Your task to perform on an android device: turn off javascript in the chrome app Image 0: 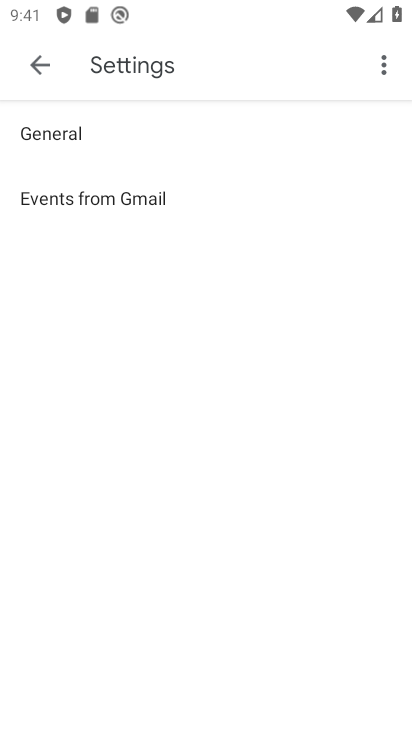
Step 0: press back button
Your task to perform on an android device: turn off javascript in the chrome app Image 1: 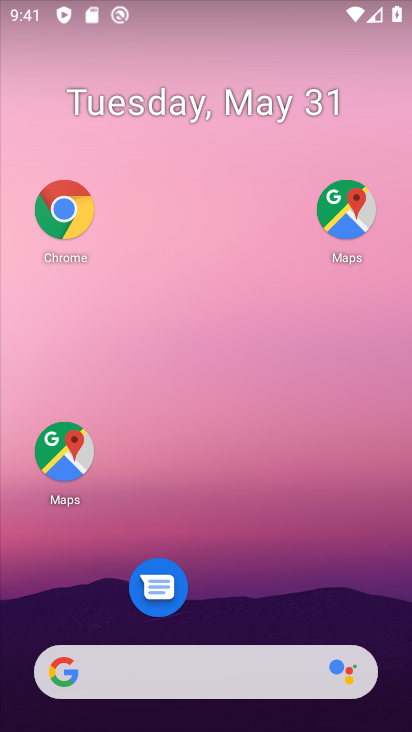
Step 1: drag from (248, 600) to (157, 81)
Your task to perform on an android device: turn off javascript in the chrome app Image 2: 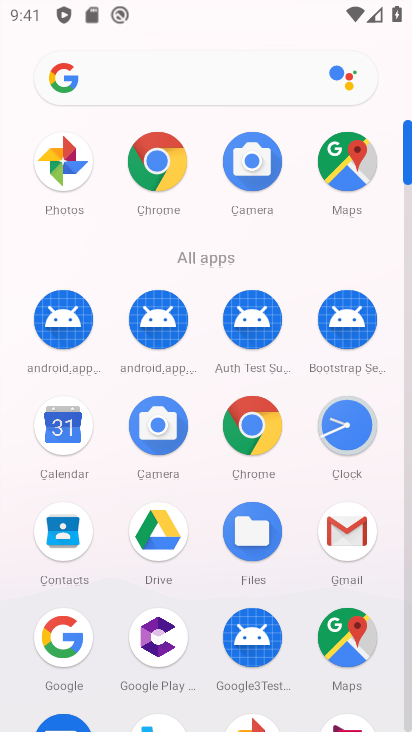
Step 2: click (244, 427)
Your task to perform on an android device: turn off javascript in the chrome app Image 3: 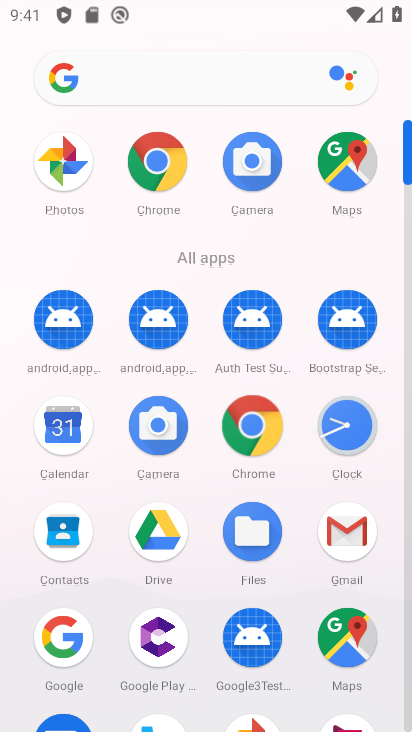
Step 3: click (249, 424)
Your task to perform on an android device: turn off javascript in the chrome app Image 4: 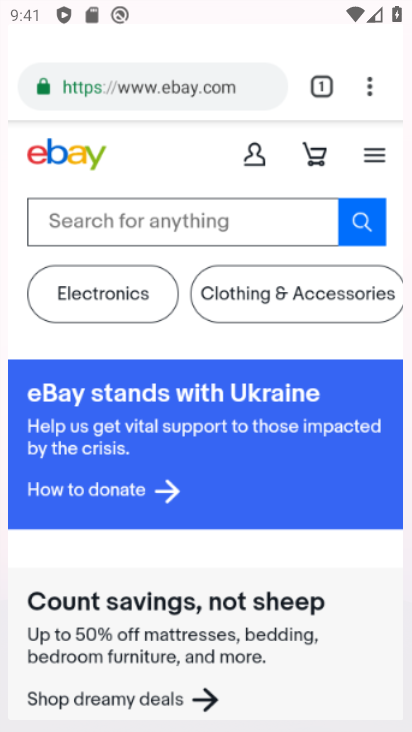
Step 4: click (250, 424)
Your task to perform on an android device: turn off javascript in the chrome app Image 5: 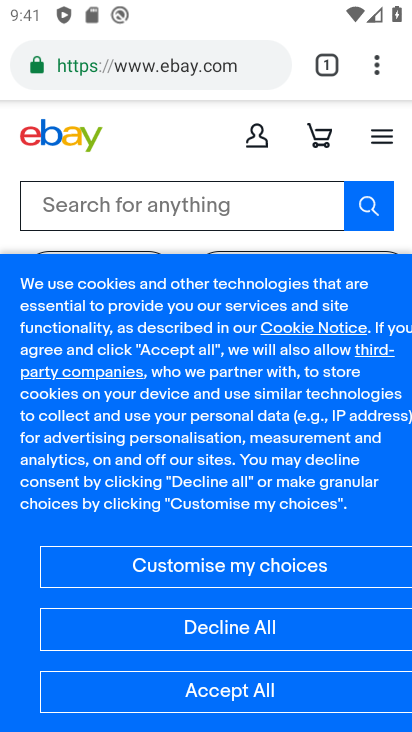
Step 5: drag from (378, 65) to (149, 637)
Your task to perform on an android device: turn off javascript in the chrome app Image 6: 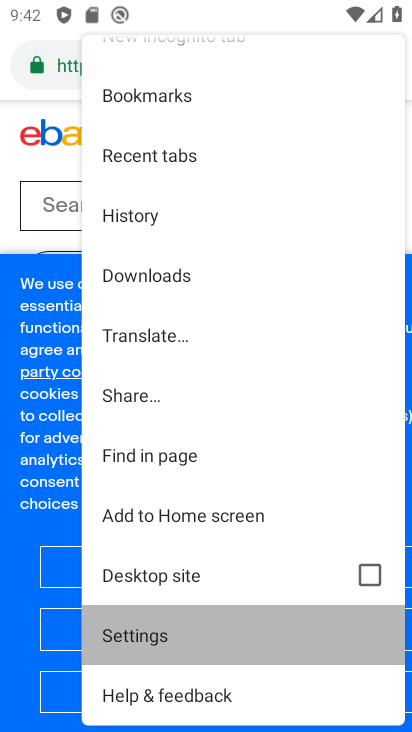
Step 6: click (149, 638)
Your task to perform on an android device: turn off javascript in the chrome app Image 7: 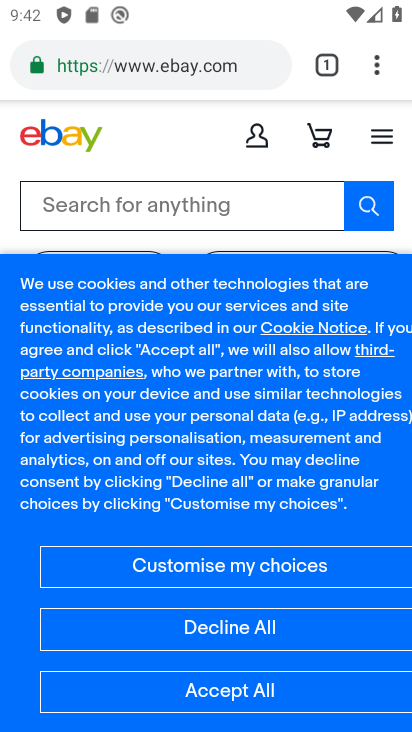
Step 7: click (149, 638)
Your task to perform on an android device: turn off javascript in the chrome app Image 8: 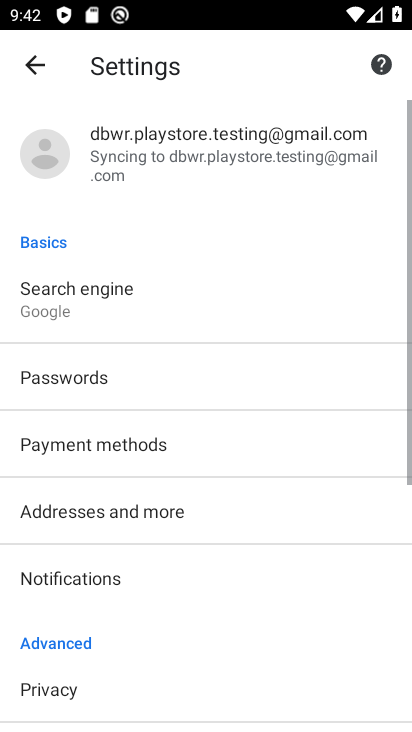
Step 8: drag from (133, 486) to (79, 43)
Your task to perform on an android device: turn off javascript in the chrome app Image 9: 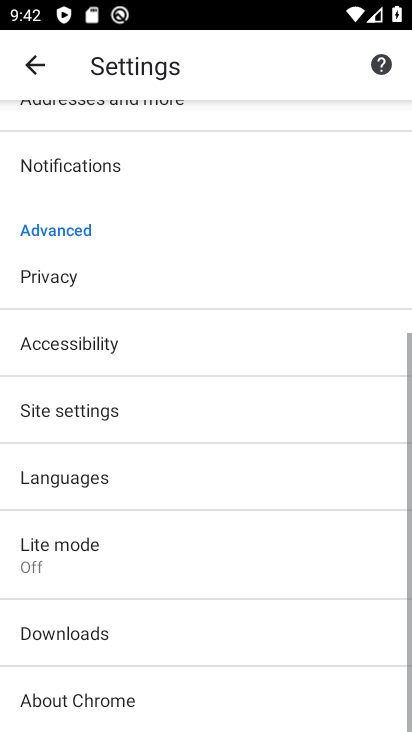
Step 9: drag from (155, 549) to (115, 150)
Your task to perform on an android device: turn off javascript in the chrome app Image 10: 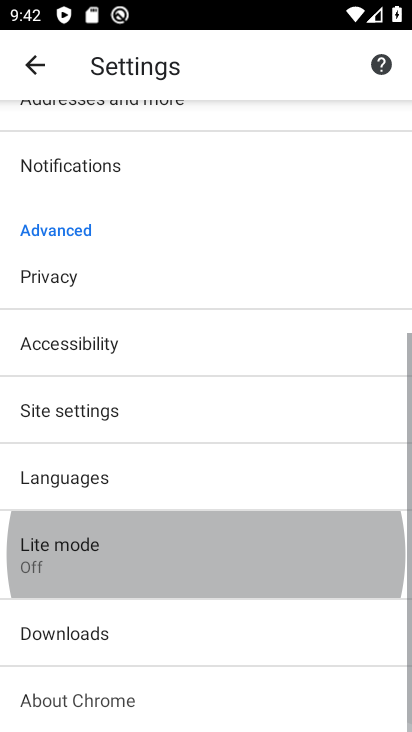
Step 10: drag from (180, 592) to (142, 204)
Your task to perform on an android device: turn off javascript in the chrome app Image 11: 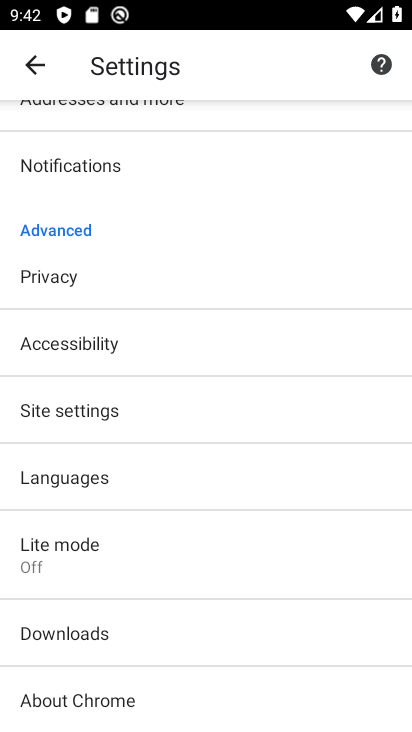
Step 11: drag from (91, 487) to (90, 158)
Your task to perform on an android device: turn off javascript in the chrome app Image 12: 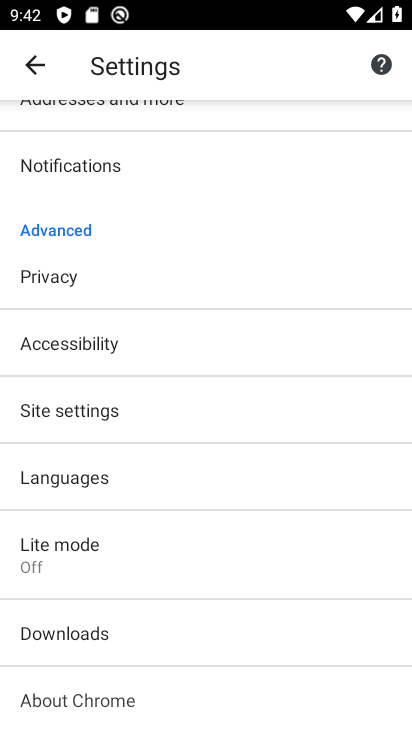
Step 12: drag from (131, 474) to (87, 207)
Your task to perform on an android device: turn off javascript in the chrome app Image 13: 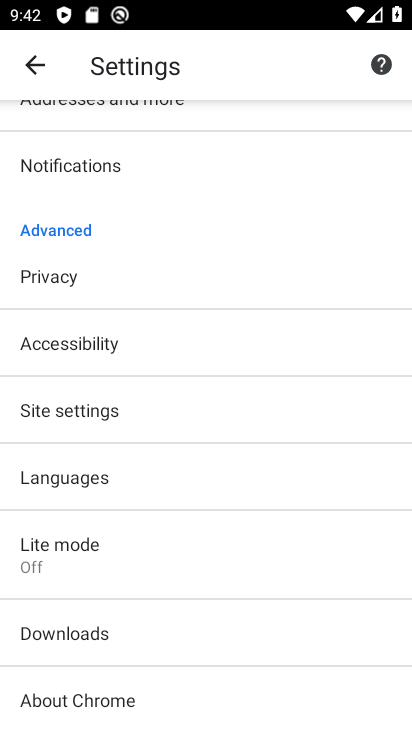
Step 13: click (61, 407)
Your task to perform on an android device: turn off javascript in the chrome app Image 14: 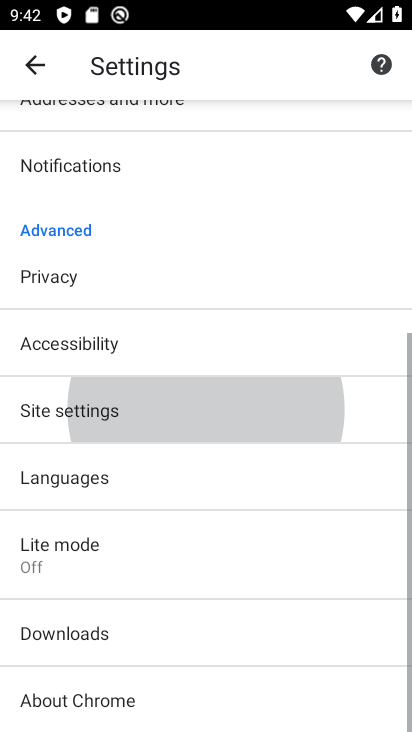
Step 14: click (62, 407)
Your task to perform on an android device: turn off javascript in the chrome app Image 15: 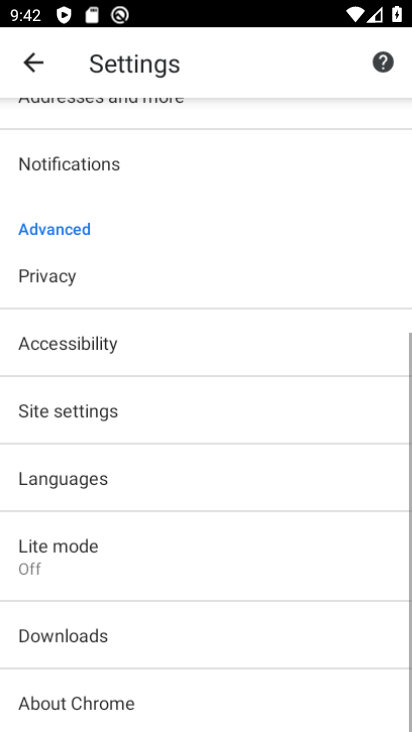
Step 15: click (62, 407)
Your task to perform on an android device: turn off javascript in the chrome app Image 16: 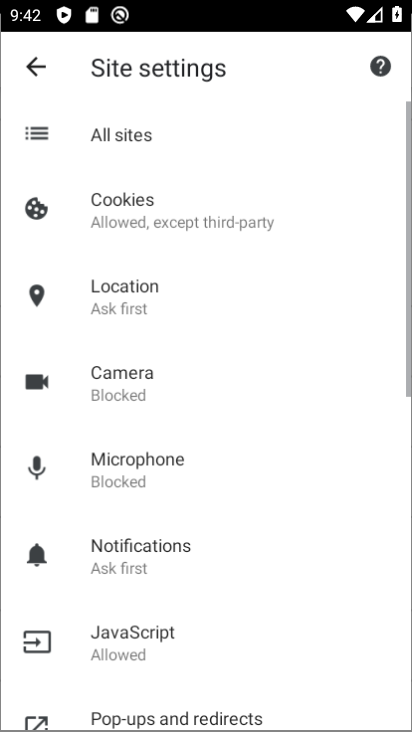
Step 16: click (62, 409)
Your task to perform on an android device: turn off javascript in the chrome app Image 17: 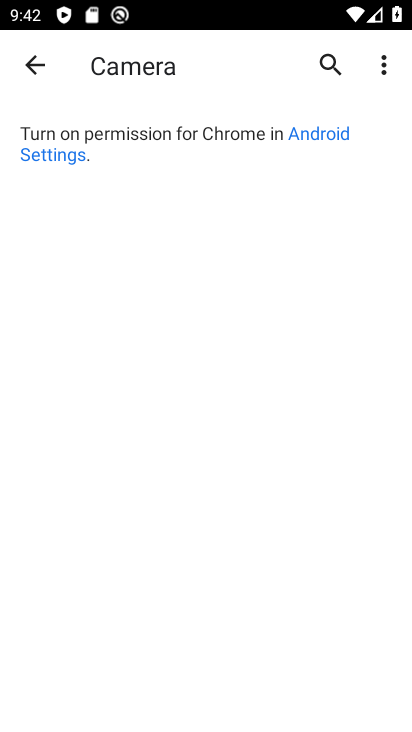
Step 17: click (24, 71)
Your task to perform on an android device: turn off javascript in the chrome app Image 18: 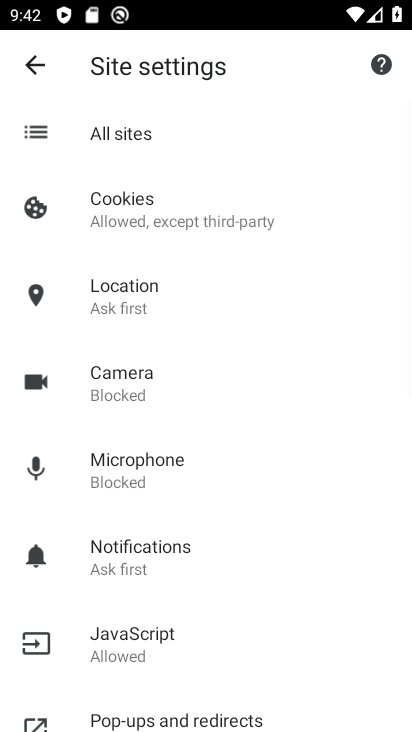
Step 18: click (125, 643)
Your task to perform on an android device: turn off javascript in the chrome app Image 19: 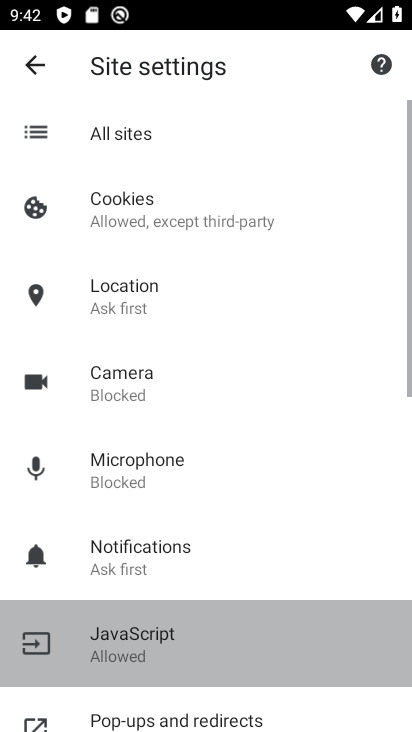
Step 19: click (130, 641)
Your task to perform on an android device: turn off javascript in the chrome app Image 20: 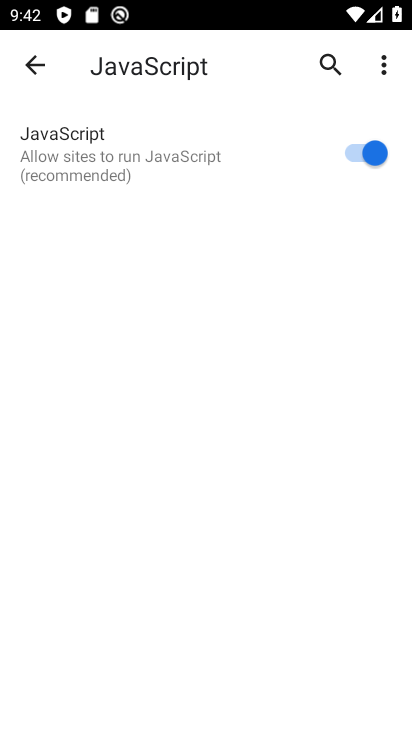
Step 20: click (375, 159)
Your task to perform on an android device: turn off javascript in the chrome app Image 21: 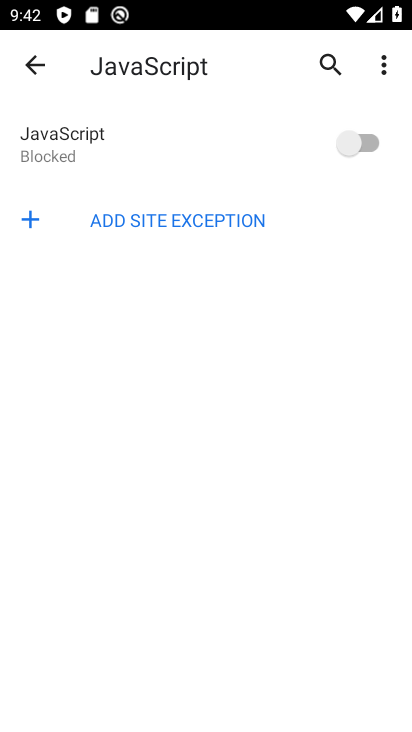
Step 21: task complete